Your task to perform on an android device: check battery use Image 0: 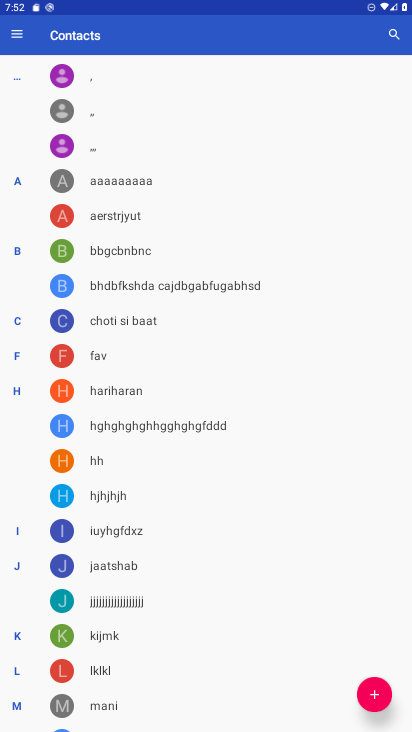
Step 0: press home button
Your task to perform on an android device: check battery use Image 1: 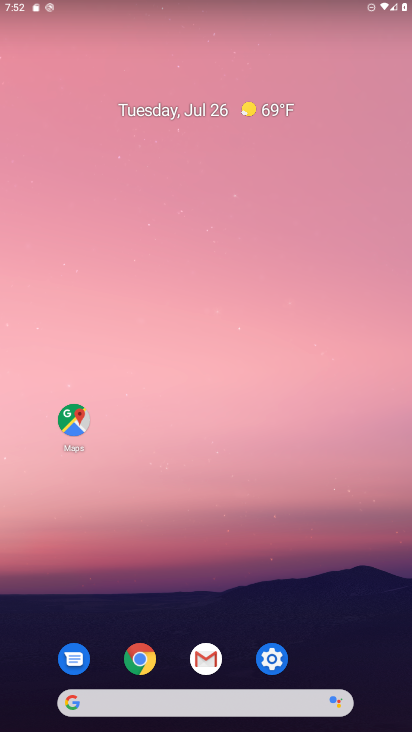
Step 1: click (274, 660)
Your task to perform on an android device: check battery use Image 2: 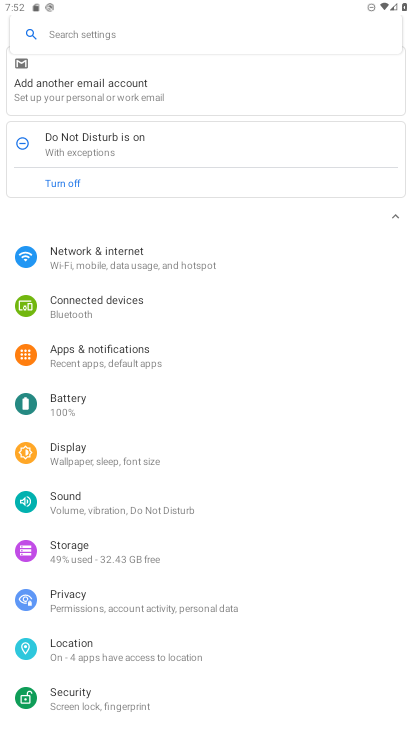
Step 2: click (75, 397)
Your task to perform on an android device: check battery use Image 3: 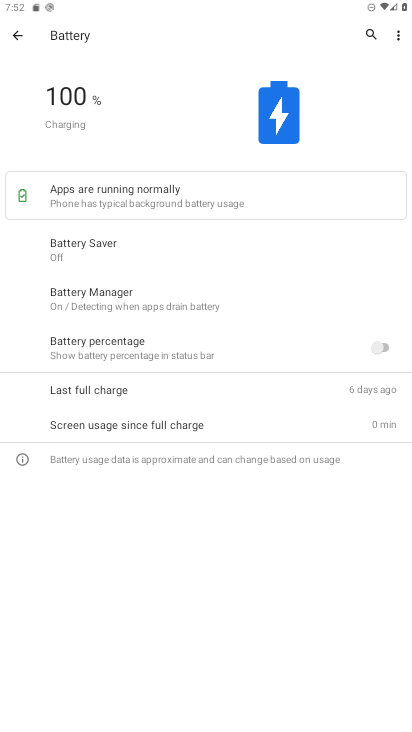
Step 3: task complete